Your task to perform on an android device: Open sound settings Image 0: 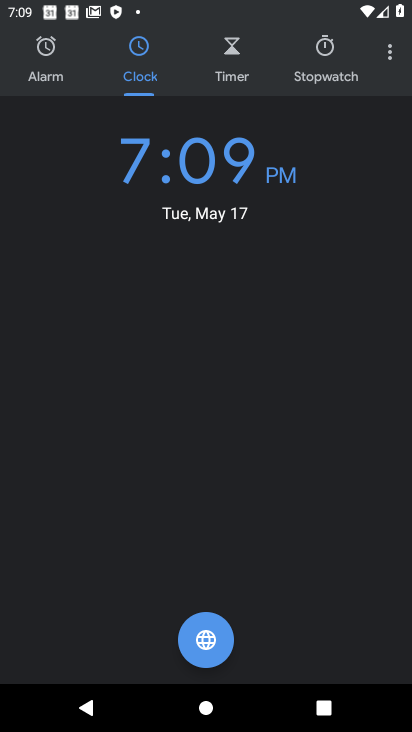
Step 0: press home button
Your task to perform on an android device: Open sound settings Image 1: 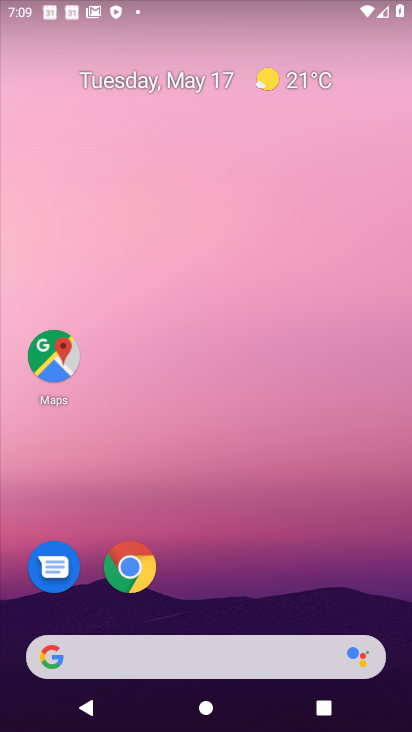
Step 1: drag from (231, 585) to (138, 76)
Your task to perform on an android device: Open sound settings Image 2: 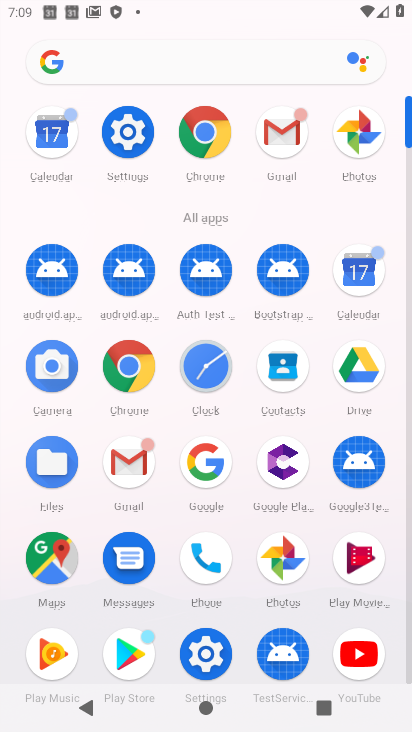
Step 2: click (123, 127)
Your task to perform on an android device: Open sound settings Image 3: 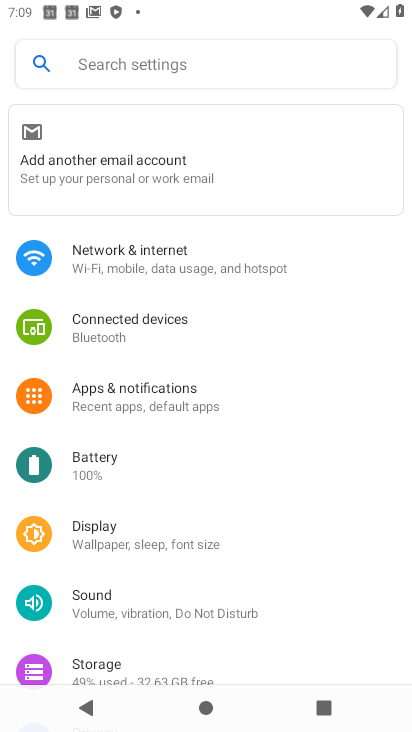
Step 3: click (92, 597)
Your task to perform on an android device: Open sound settings Image 4: 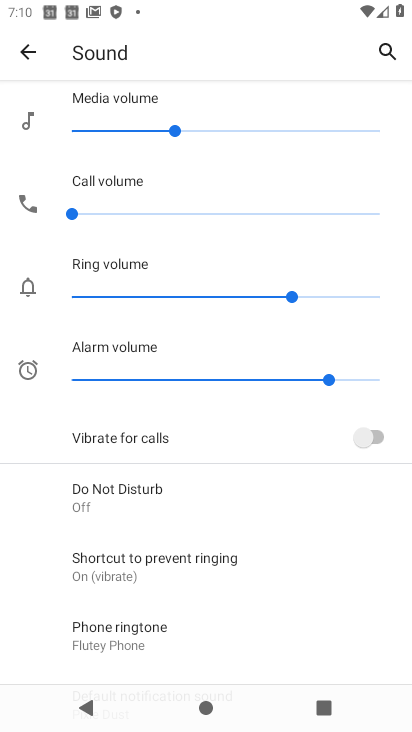
Step 4: task complete